Your task to perform on an android device: What is the news today? Image 0: 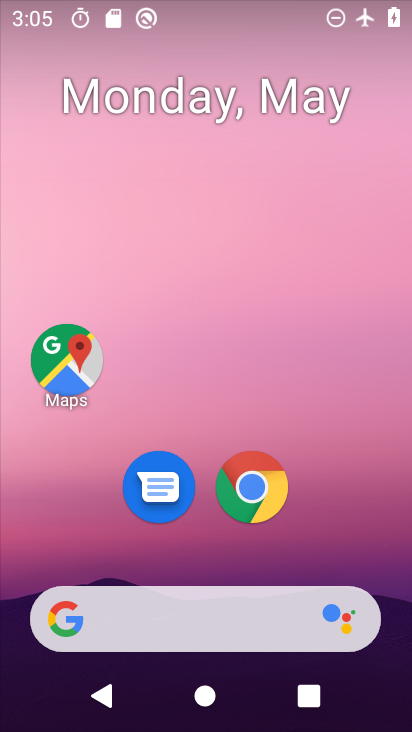
Step 0: click (173, 622)
Your task to perform on an android device: What is the news today? Image 1: 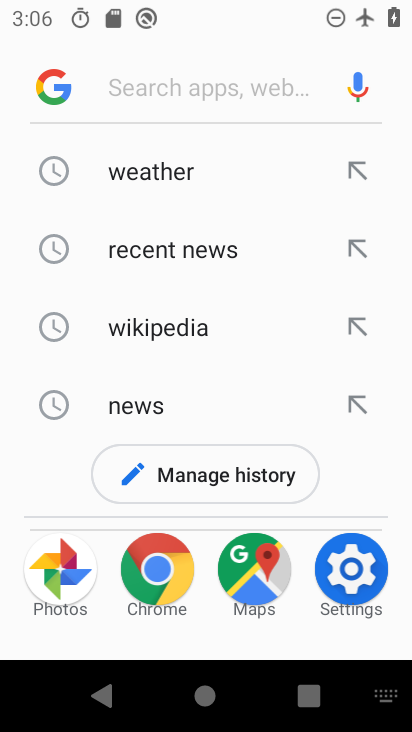
Step 1: type "news today ?"
Your task to perform on an android device: What is the news today? Image 2: 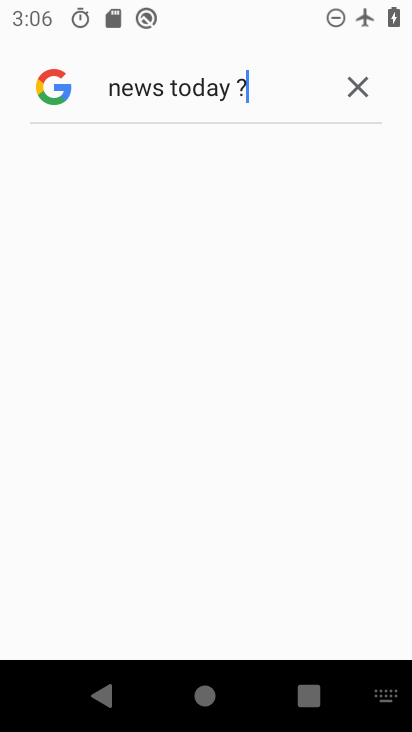
Step 2: click (154, 194)
Your task to perform on an android device: What is the news today? Image 3: 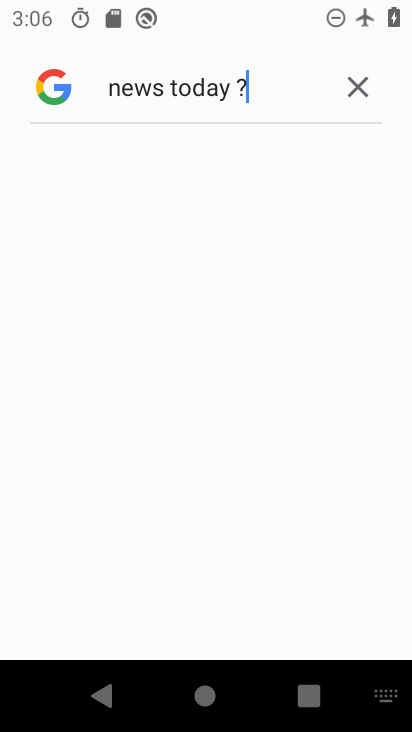
Step 3: task complete